Your task to perform on an android device: choose inbox layout in the gmail app Image 0: 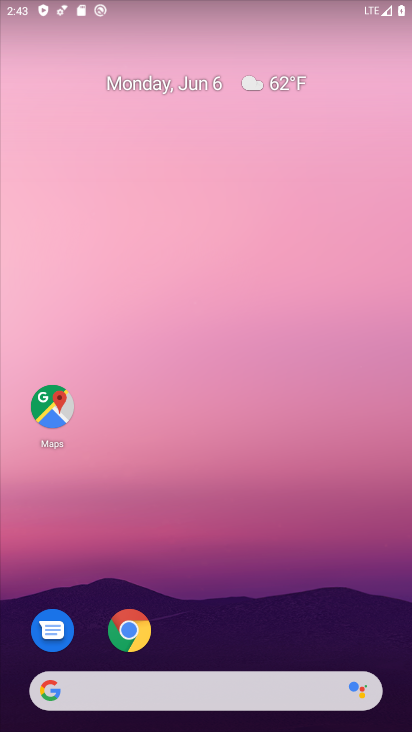
Step 0: drag from (394, 704) to (200, 1)
Your task to perform on an android device: choose inbox layout in the gmail app Image 1: 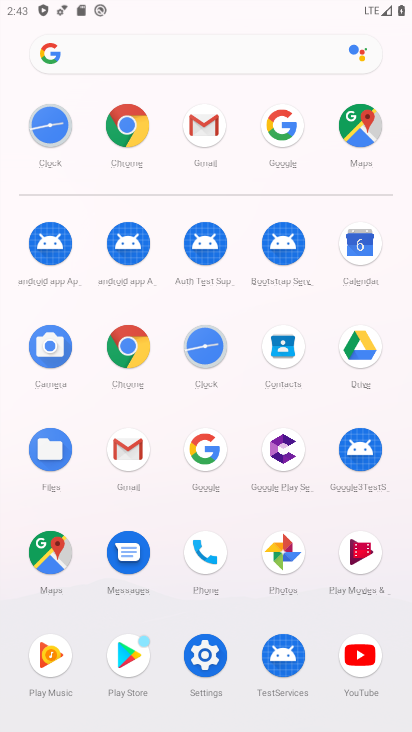
Step 1: click (194, 117)
Your task to perform on an android device: choose inbox layout in the gmail app Image 2: 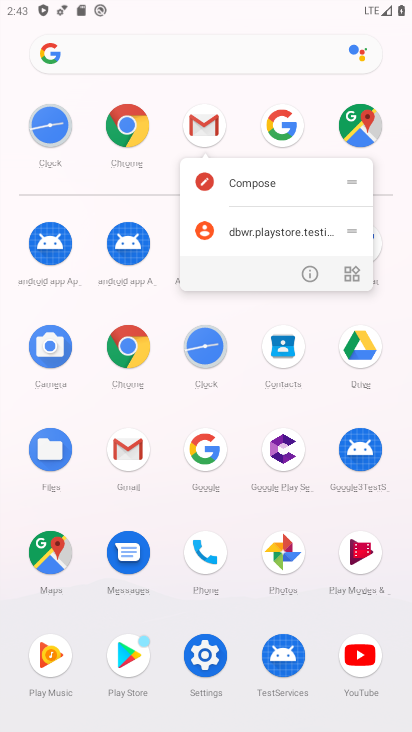
Step 2: click (194, 117)
Your task to perform on an android device: choose inbox layout in the gmail app Image 3: 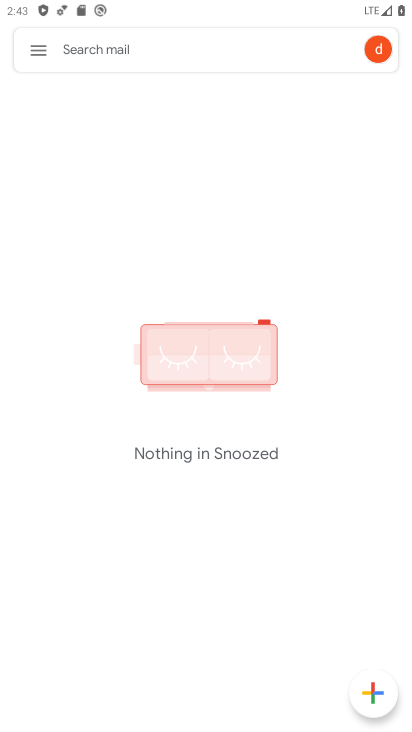
Step 3: click (38, 46)
Your task to perform on an android device: choose inbox layout in the gmail app Image 4: 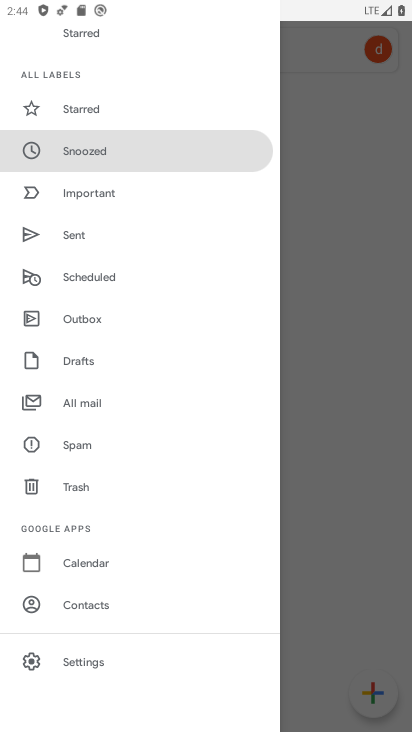
Step 4: click (52, 668)
Your task to perform on an android device: choose inbox layout in the gmail app Image 5: 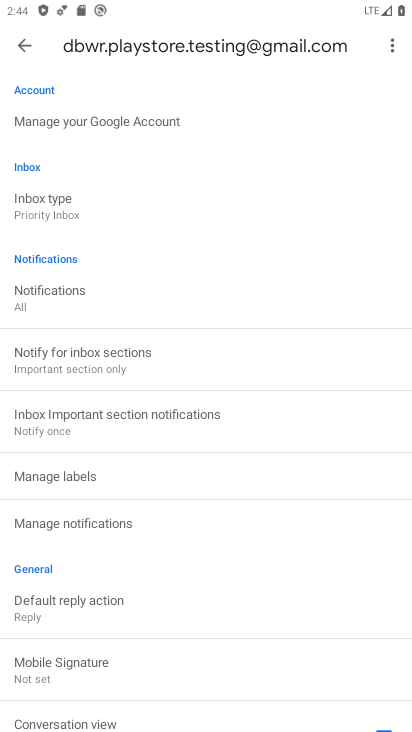
Step 5: click (29, 204)
Your task to perform on an android device: choose inbox layout in the gmail app Image 6: 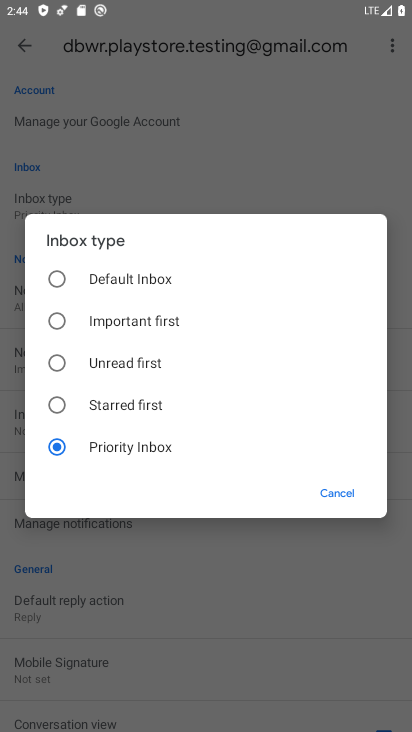
Step 6: click (57, 370)
Your task to perform on an android device: choose inbox layout in the gmail app Image 7: 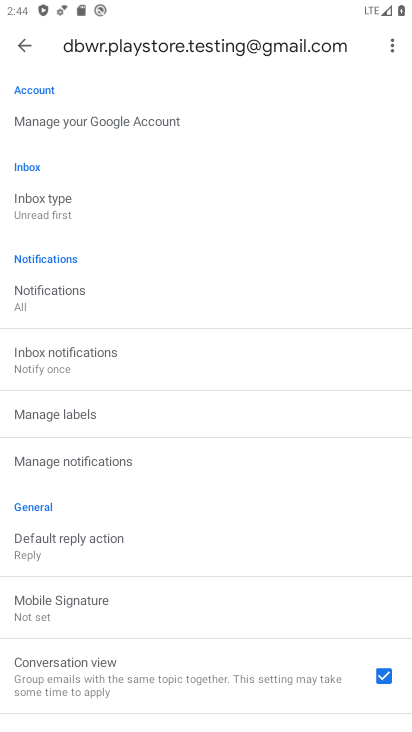
Step 7: task complete